Your task to perform on an android device: Search for Italian restaurants on Maps Image 0: 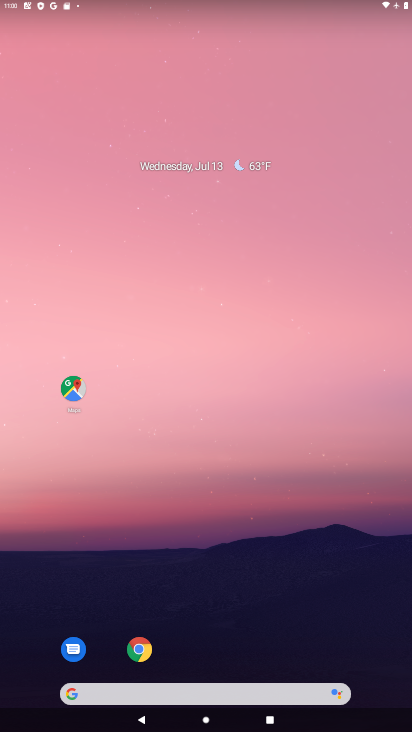
Step 0: drag from (218, 552) to (234, 193)
Your task to perform on an android device: Search for Italian restaurants on Maps Image 1: 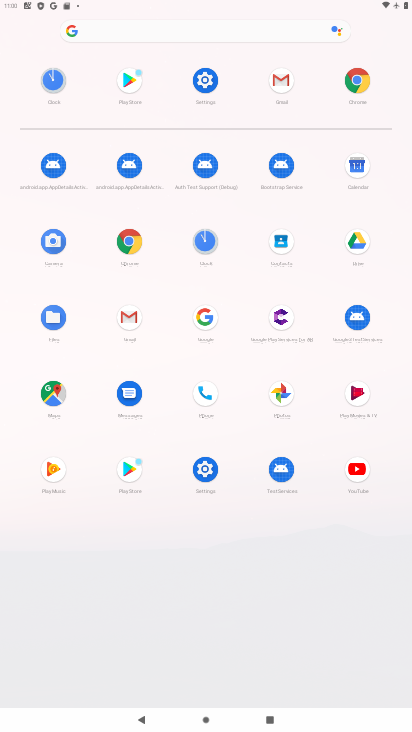
Step 1: click (58, 387)
Your task to perform on an android device: Search for Italian restaurants on Maps Image 2: 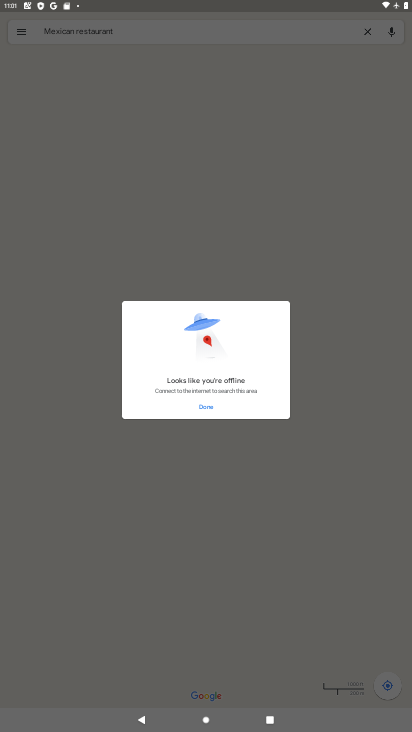
Step 2: click (201, 406)
Your task to perform on an android device: Search for Italian restaurants on Maps Image 3: 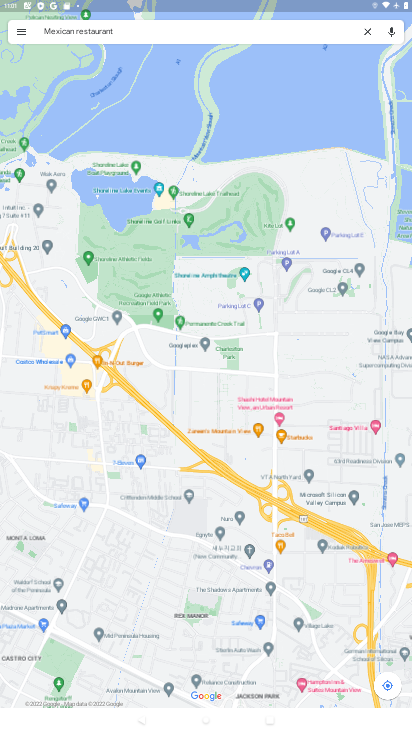
Step 3: click (178, 28)
Your task to perform on an android device: Search for Italian restaurants on Maps Image 4: 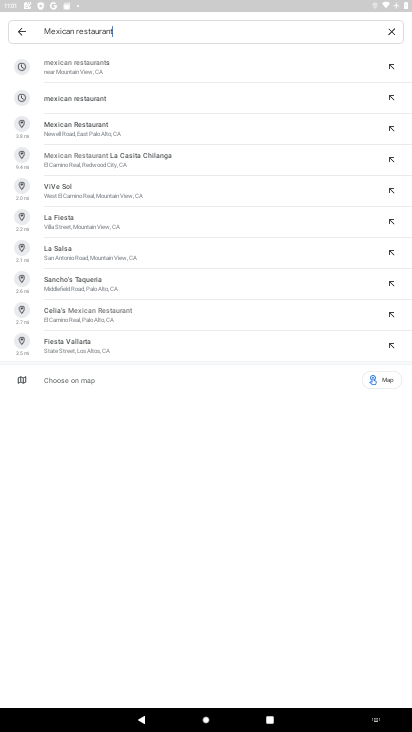
Step 4: type " Italian restaurants "
Your task to perform on an android device: Search for Italian restaurants on Maps Image 5: 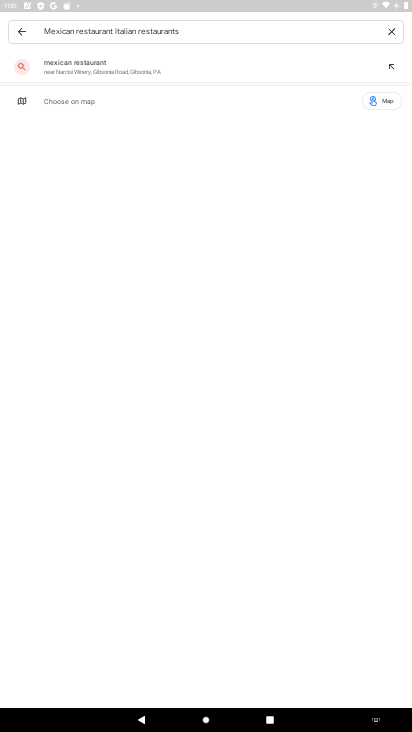
Step 5: click (106, 63)
Your task to perform on an android device: Search for Italian restaurants on Maps Image 6: 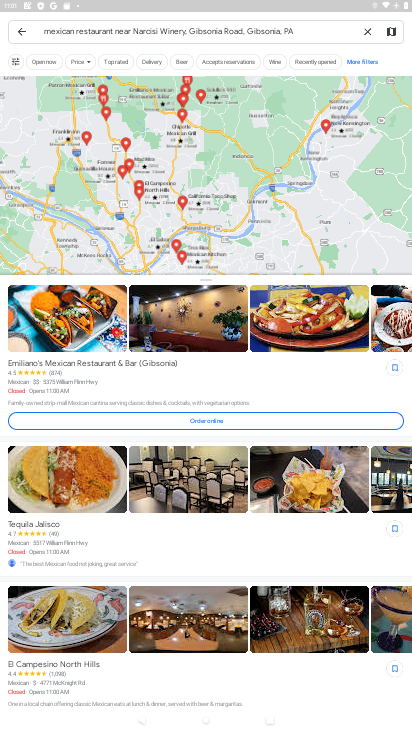
Step 6: task complete